Your task to perform on an android device: Add "lg ultragear" to the cart on walmart.com Image 0: 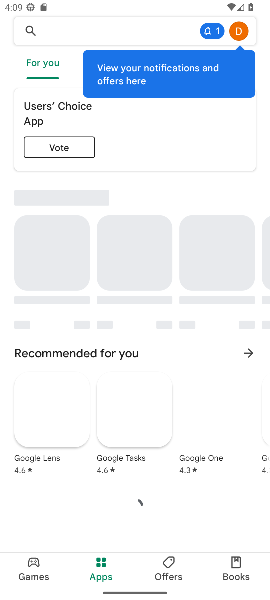
Step 0: press home button
Your task to perform on an android device: Add "lg ultragear" to the cart on walmart.com Image 1: 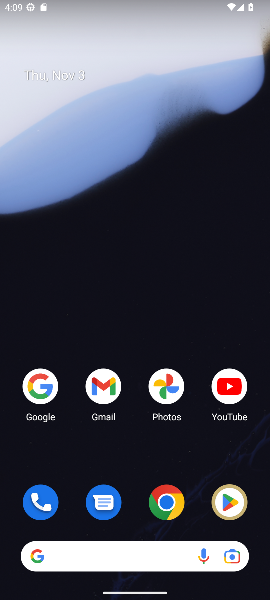
Step 1: click (39, 384)
Your task to perform on an android device: Add "lg ultragear" to the cart on walmart.com Image 2: 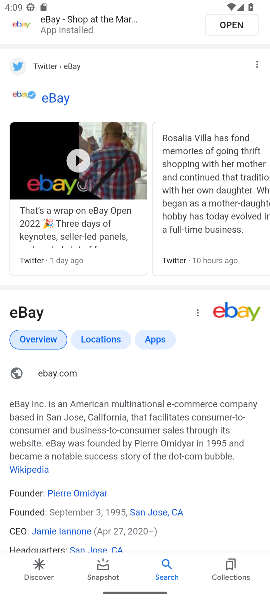
Step 2: drag from (168, 68) to (165, 209)
Your task to perform on an android device: Add "lg ultragear" to the cart on walmart.com Image 3: 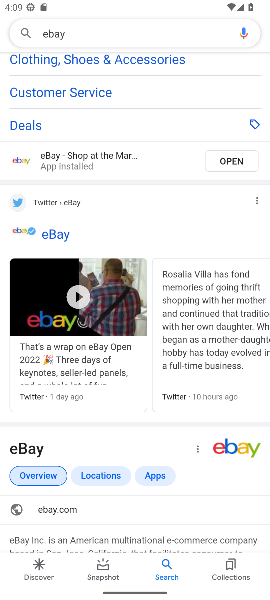
Step 3: drag from (164, 84) to (139, 479)
Your task to perform on an android device: Add "lg ultragear" to the cart on walmart.com Image 4: 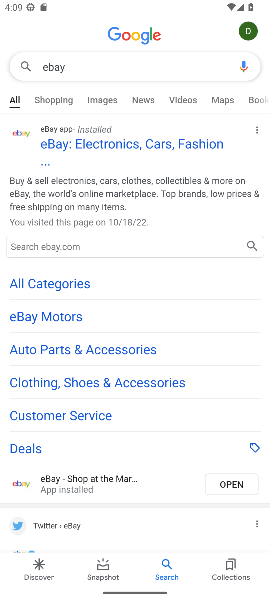
Step 4: click (82, 64)
Your task to perform on an android device: Add "lg ultragear" to the cart on walmart.com Image 5: 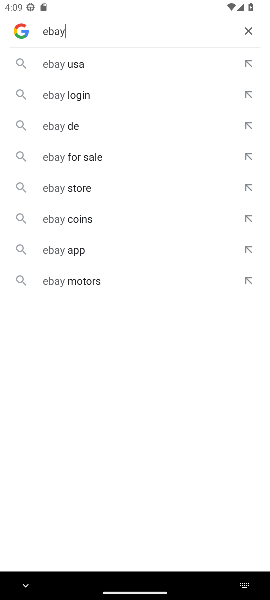
Step 5: click (248, 31)
Your task to perform on an android device: Add "lg ultragear" to the cart on walmart.com Image 6: 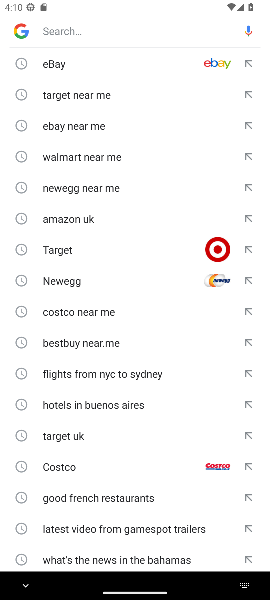
Step 6: type "walmart.com"
Your task to perform on an android device: Add "lg ultragear" to the cart on walmart.com Image 7: 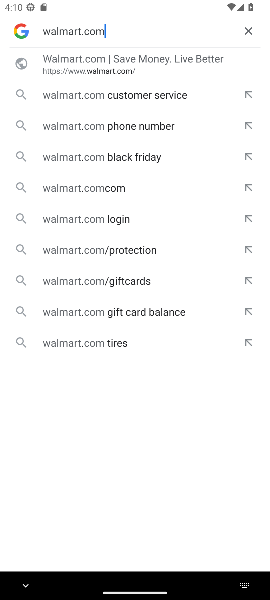
Step 7: click (82, 59)
Your task to perform on an android device: Add "lg ultragear" to the cart on walmart.com Image 8: 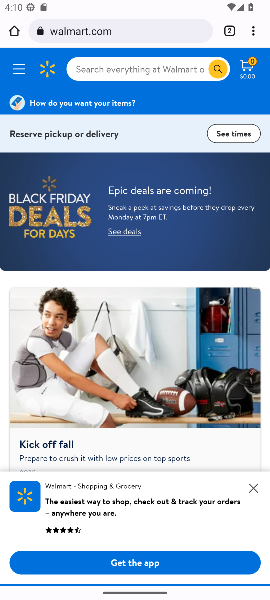
Step 8: click (117, 67)
Your task to perform on an android device: Add "lg ultragear" to the cart on walmart.com Image 9: 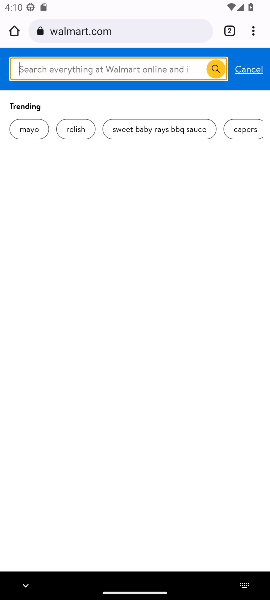
Step 9: type "lg ultragear"
Your task to perform on an android device: Add "lg ultragear" to the cart on walmart.com Image 10: 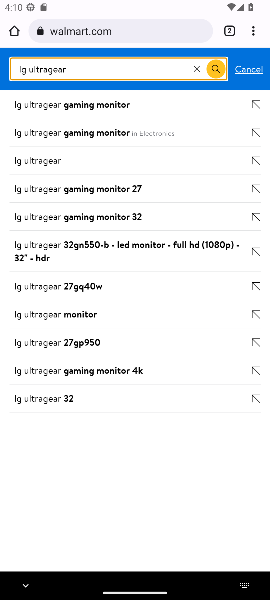
Step 10: click (60, 159)
Your task to perform on an android device: Add "lg ultragear" to the cart on walmart.com Image 11: 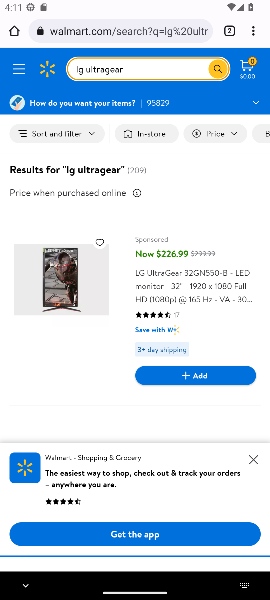
Step 11: click (255, 462)
Your task to perform on an android device: Add "lg ultragear" to the cart on walmart.com Image 12: 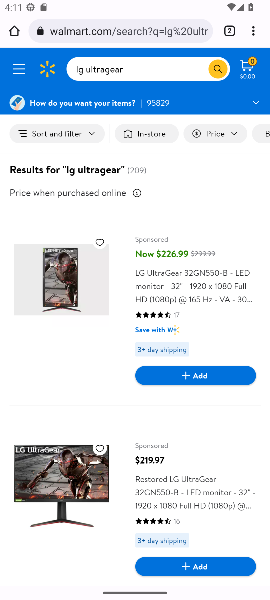
Step 12: click (185, 374)
Your task to perform on an android device: Add "lg ultragear" to the cart on walmart.com Image 13: 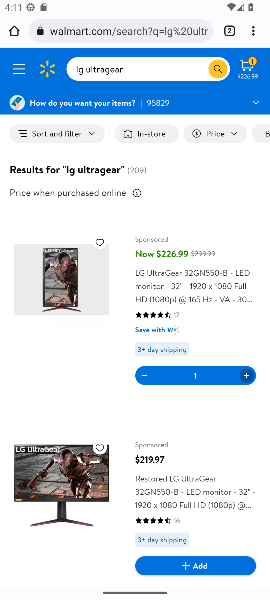
Step 13: task complete